Your task to perform on an android device: check android version Image 0: 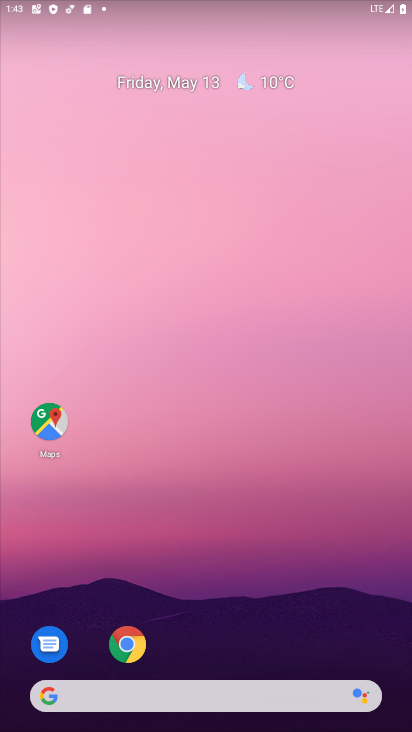
Step 0: drag from (190, 693) to (275, 0)
Your task to perform on an android device: check android version Image 1: 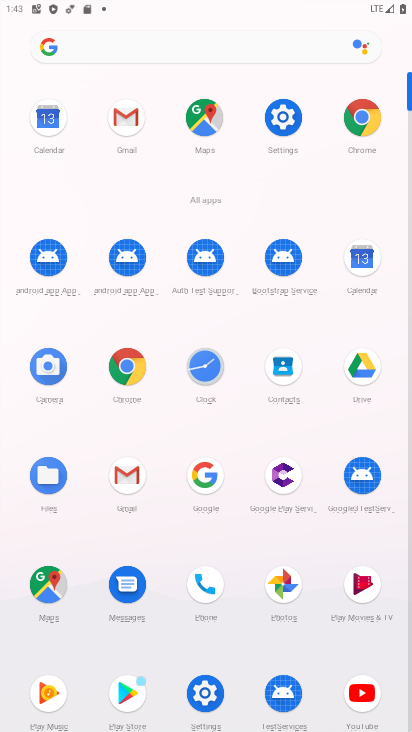
Step 1: click (284, 125)
Your task to perform on an android device: check android version Image 2: 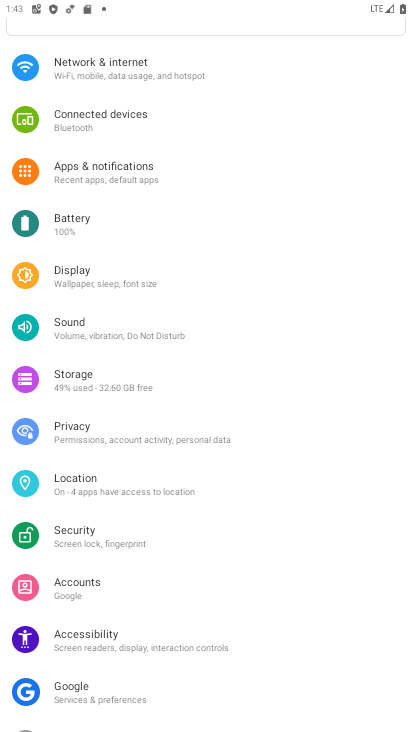
Step 2: drag from (180, 688) to (140, 214)
Your task to perform on an android device: check android version Image 3: 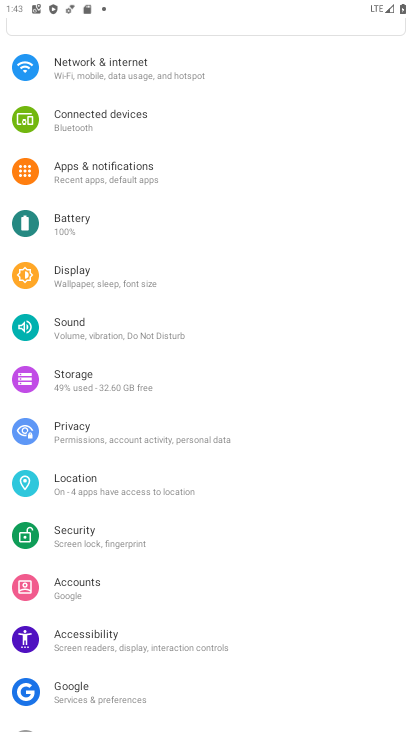
Step 3: drag from (115, 703) to (151, 186)
Your task to perform on an android device: check android version Image 4: 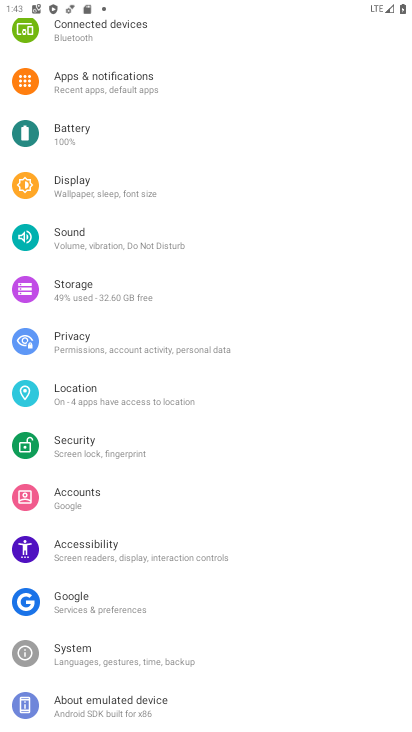
Step 4: click (119, 709)
Your task to perform on an android device: check android version Image 5: 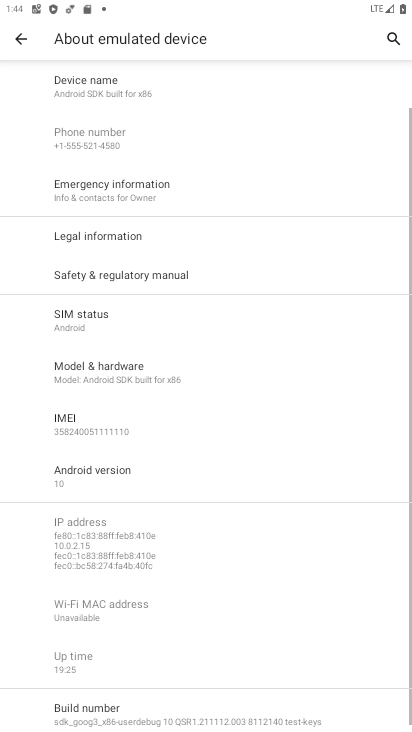
Step 5: click (139, 481)
Your task to perform on an android device: check android version Image 6: 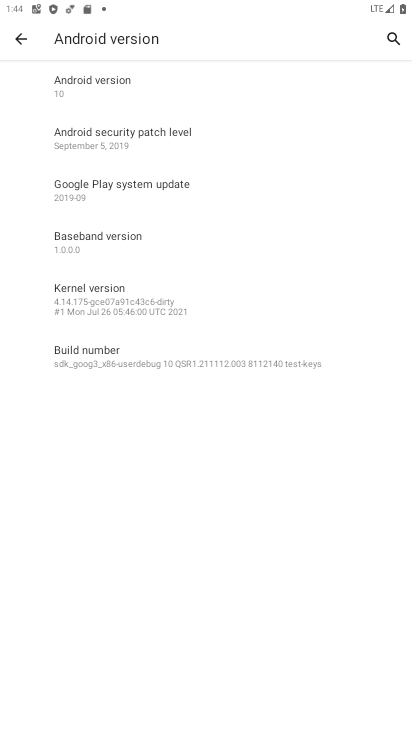
Step 6: task complete